Your task to perform on an android device: open app "Adobe Acrobat Reader" (install if not already installed) and enter user name: "nondescriptly@inbox.com" and password: "negating" Image 0: 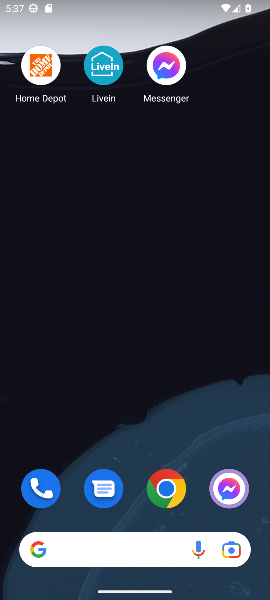
Step 0: drag from (135, 513) to (212, 56)
Your task to perform on an android device: open app "Adobe Acrobat Reader" (install if not already installed) and enter user name: "nondescriptly@inbox.com" and password: "negating" Image 1: 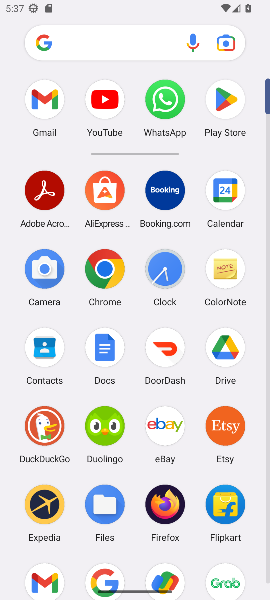
Step 1: click (17, 189)
Your task to perform on an android device: open app "Adobe Acrobat Reader" (install if not already installed) and enter user name: "nondescriptly@inbox.com" and password: "negating" Image 2: 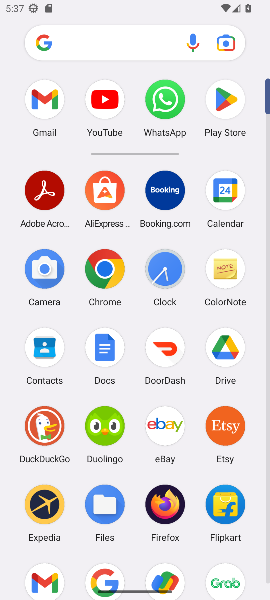
Step 2: task complete